Your task to perform on an android device: turn on showing notifications on the lock screen Image 0: 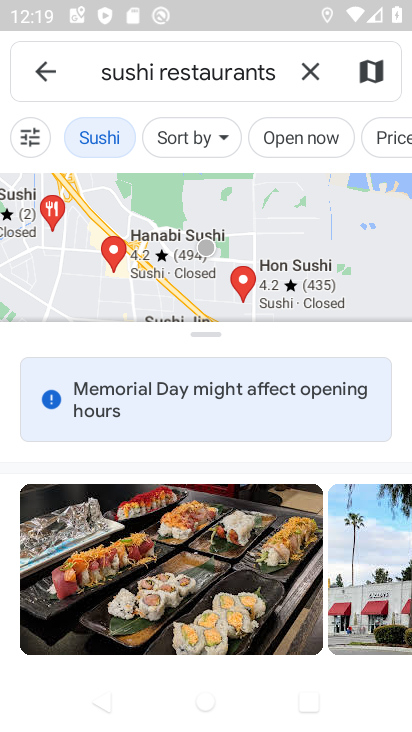
Step 0: press home button
Your task to perform on an android device: turn on showing notifications on the lock screen Image 1: 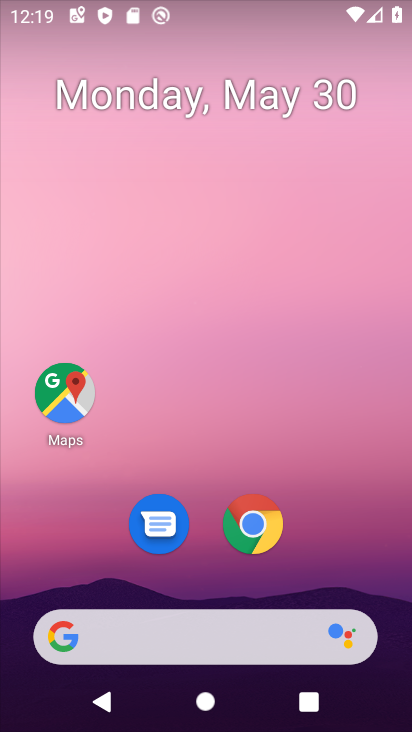
Step 1: click (217, 641)
Your task to perform on an android device: turn on showing notifications on the lock screen Image 2: 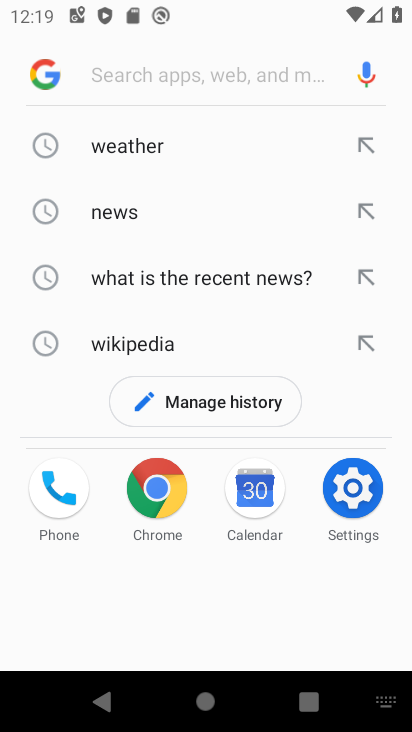
Step 2: press home button
Your task to perform on an android device: turn on showing notifications on the lock screen Image 3: 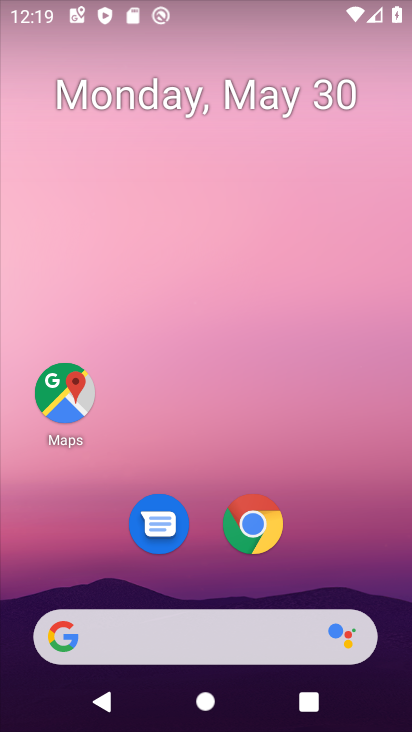
Step 3: drag from (200, 474) to (218, 57)
Your task to perform on an android device: turn on showing notifications on the lock screen Image 4: 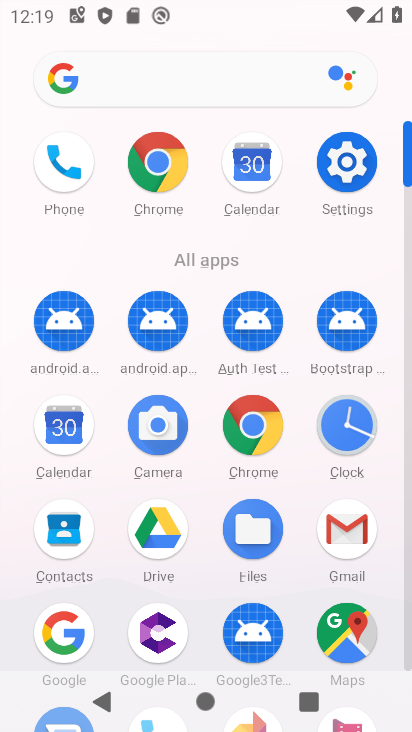
Step 4: click (341, 179)
Your task to perform on an android device: turn on showing notifications on the lock screen Image 5: 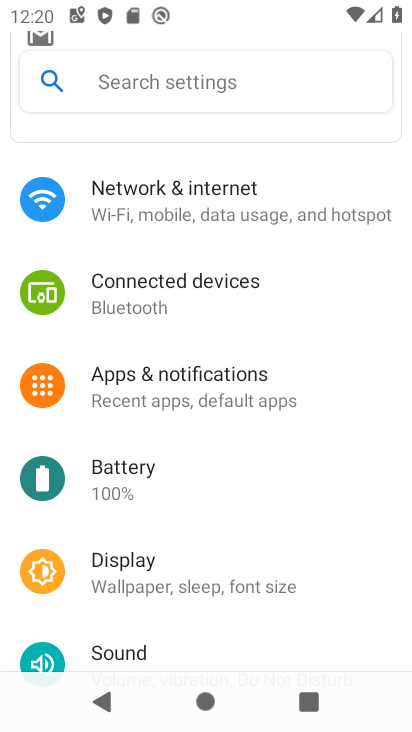
Step 5: click (222, 382)
Your task to perform on an android device: turn on showing notifications on the lock screen Image 6: 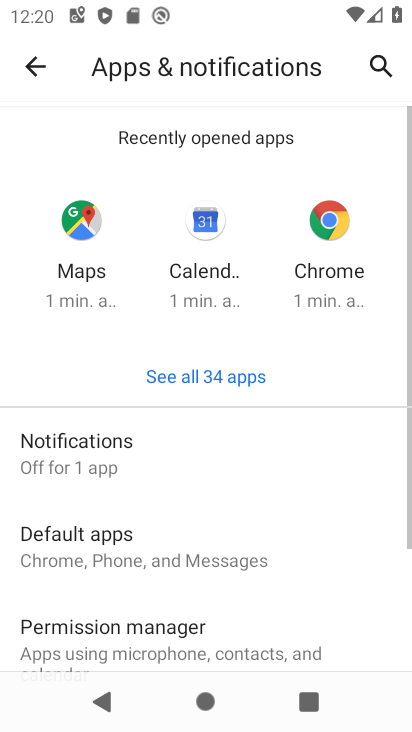
Step 6: click (213, 459)
Your task to perform on an android device: turn on showing notifications on the lock screen Image 7: 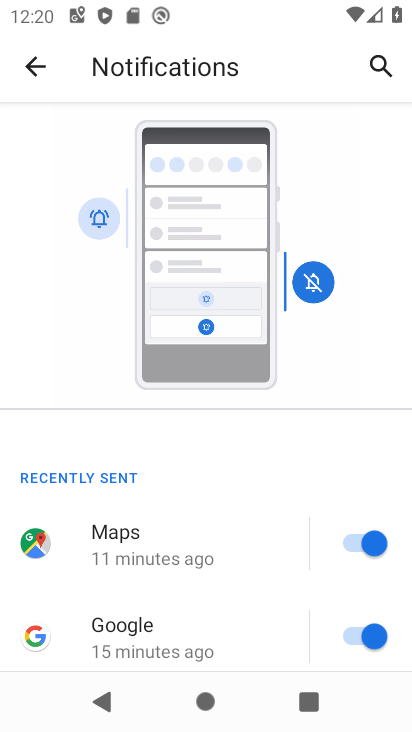
Step 7: task complete